Your task to perform on an android device: Go to Reddit.com Image 0: 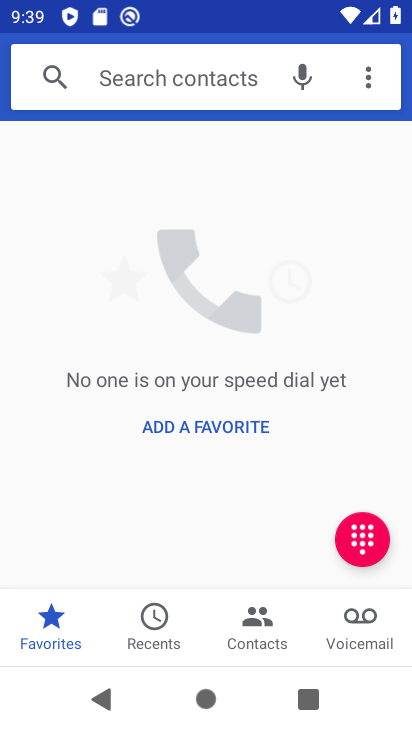
Step 0: press home button
Your task to perform on an android device: Go to Reddit.com Image 1: 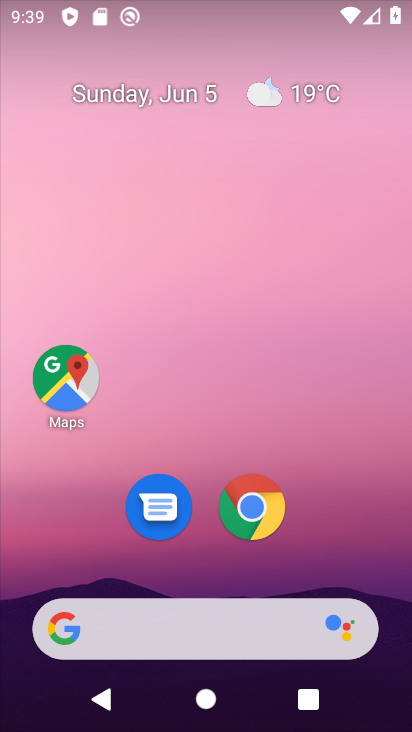
Step 1: click (159, 639)
Your task to perform on an android device: Go to Reddit.com Image 2: 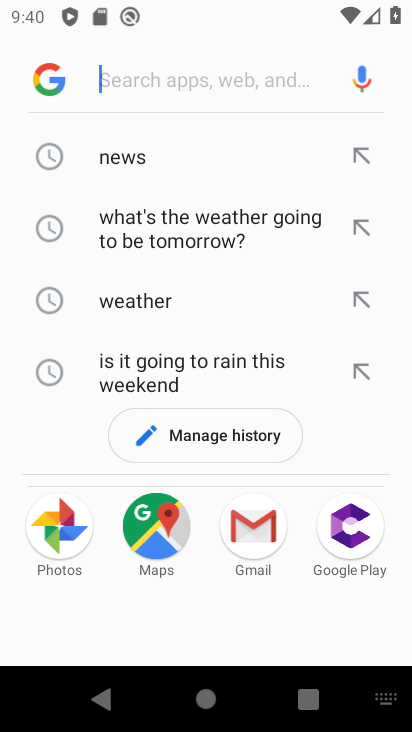
Step 2: type "reddit"
Your task to perform on an android device: Go to Reddit.com Image 3: 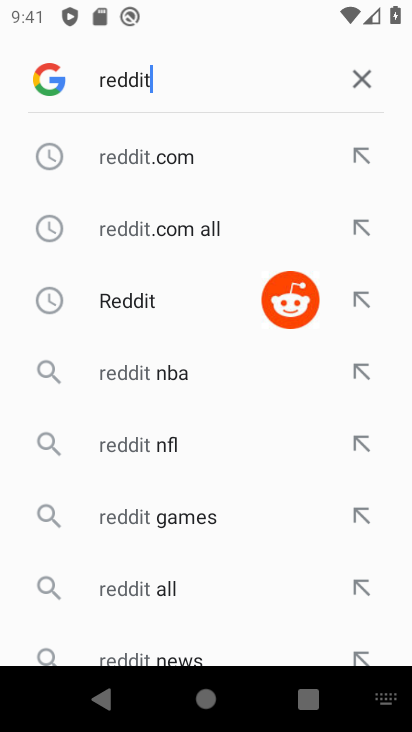
Step 3: click (289, 309)
Your task to perform on an android device: Go to Reddit.com Image 4: 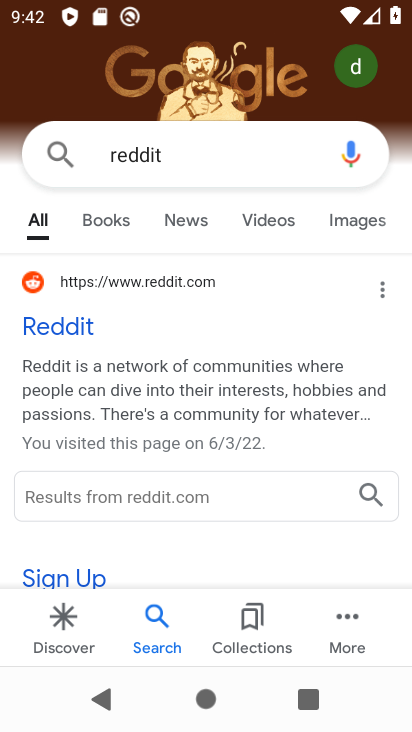
Step 4: click (29, 342)
Your task to perform on an android device: Go to Reddit.com Image 5: 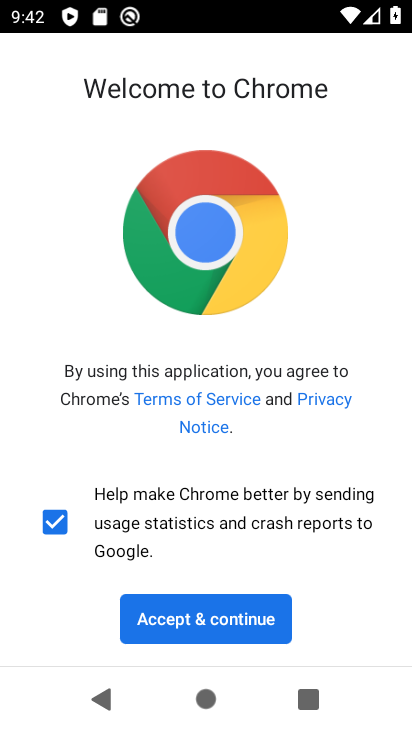
Step 5: click (256, 616)
Your task to perform on an android device: Go to Reddit.com Image 6: 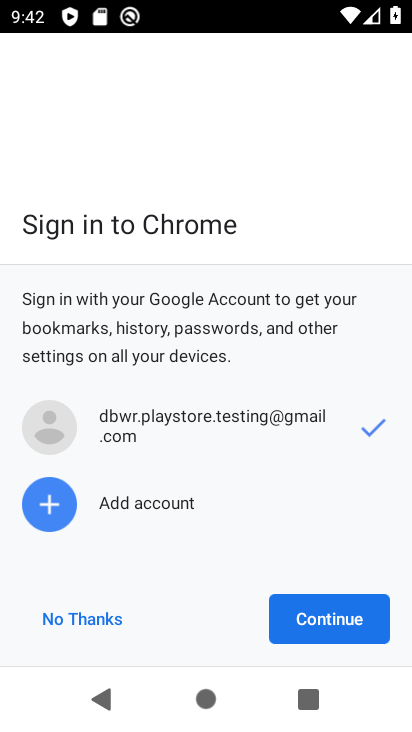
Step 6: click (256, 616)
Your task to perform on an android device: Go to Reddit.com Image 7: 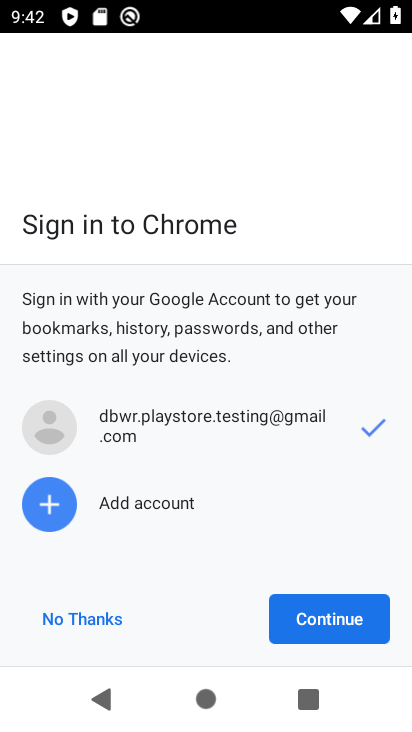
Step 7: click (292, 618)
Your task to perform on an android device: Go to Reddit.com Image 8: 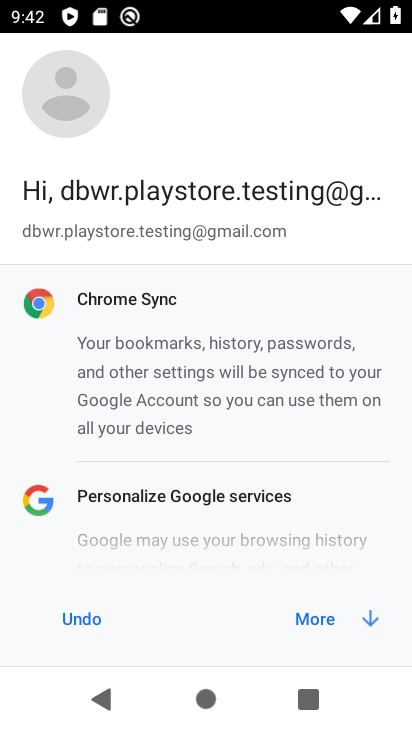
Step 8: click (292, 618)
Your task to perform on an android device: Go to Reddit.com Image 9: 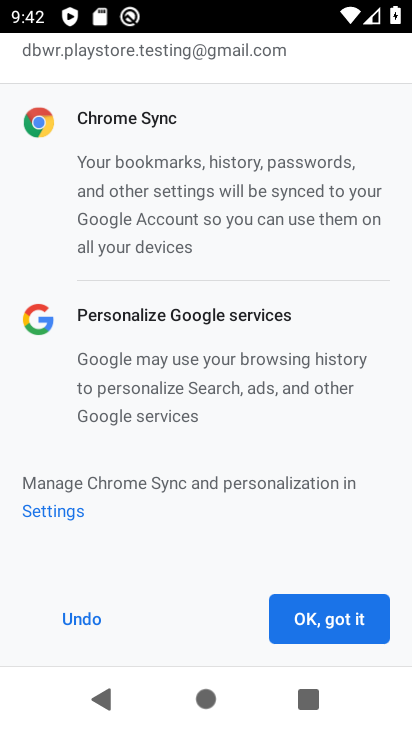
Step 9: click (292, 618)
Your task to perform on an android device: Go to Reddit.com Image 10: 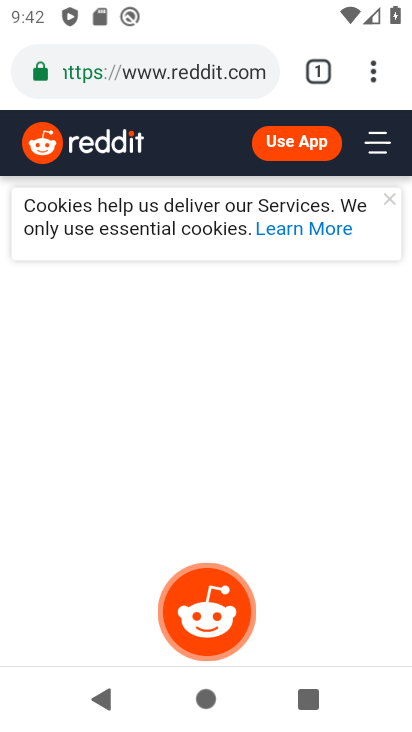
Step 10: task complete